Your task to perform on an android device: move an email to a new category in the gmail app Image 0: 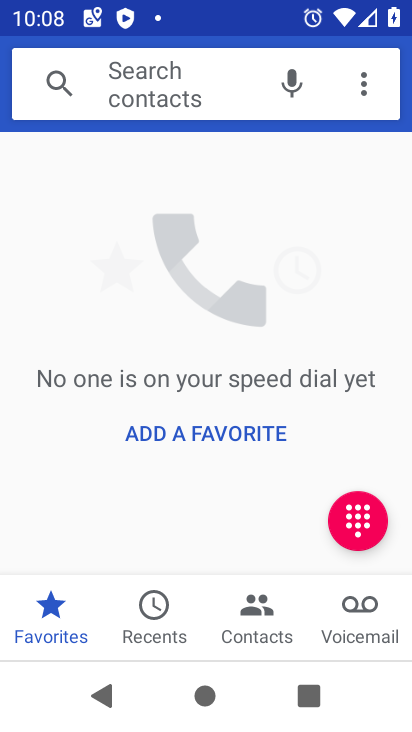
Step 0: press home button
Your task to perform on an android device: move an email to a new category in the gmail app Image 1: 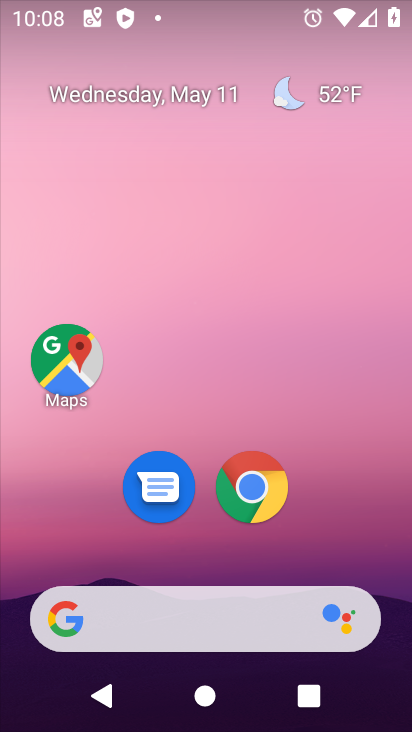
Step 1: drag from (205, 554) to (206, 205)
Your task to perform on an android device: move an email to a new category in the gmail app Image 2: 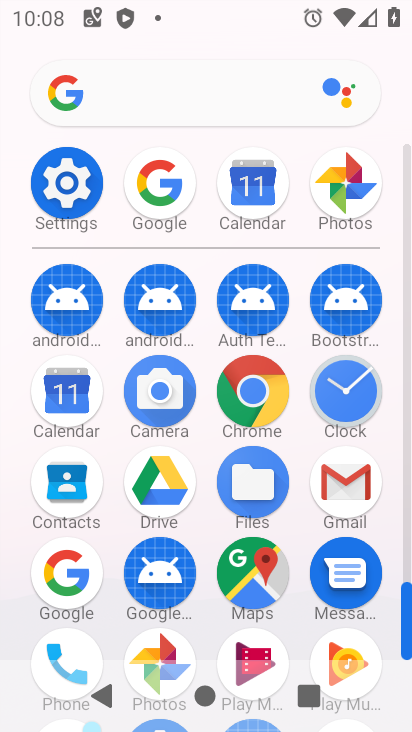
Step 2: drag from (120, 539) to (137, 445)
Your task to perform on an android device: move an email to a new category in the gmail app Image 3: 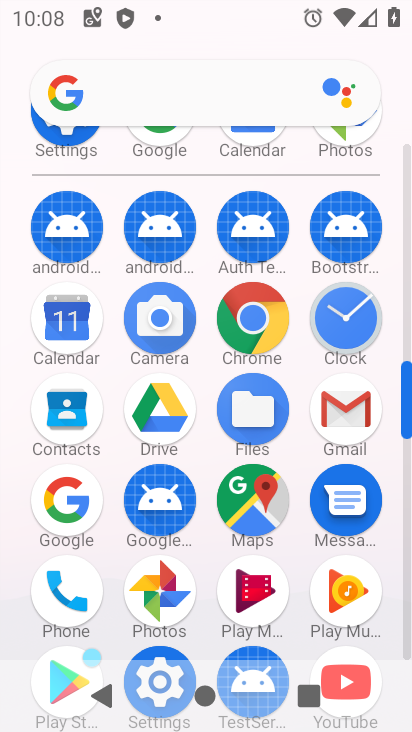
Step 3: click (345, 422)
Your task to perform on an android device: move an email to a new category in the gmail app Image 4: 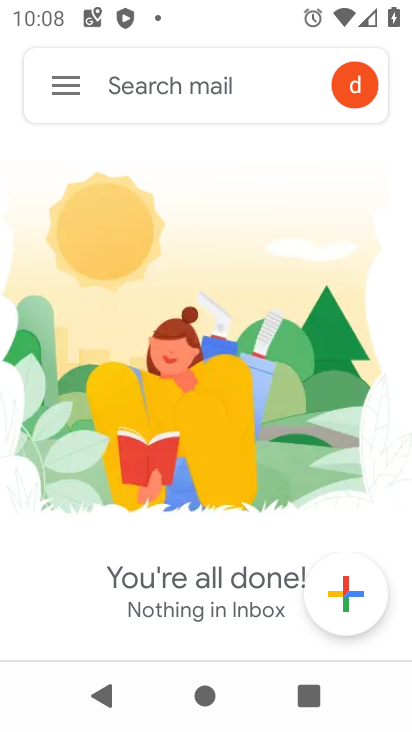
Step 4: click (47, 91)
Your task to perform on an android device: move an email to a new category in the gmail app Image 5: 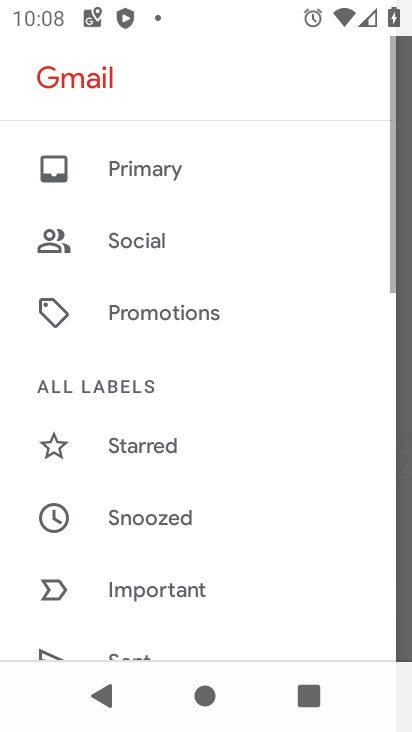
Step 5: drag from (128, 182) to (156, 571)
Your task to perform on an android device: move an email to a new category in the gmail app Image 6: 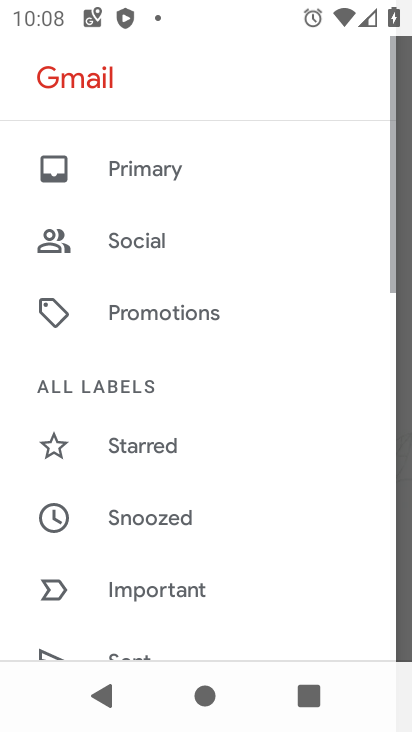
Step 6: drag from (181, 564) to (177, 254)
Your task to perform on an android device: move an email to a new category in the gmail app Image 7: 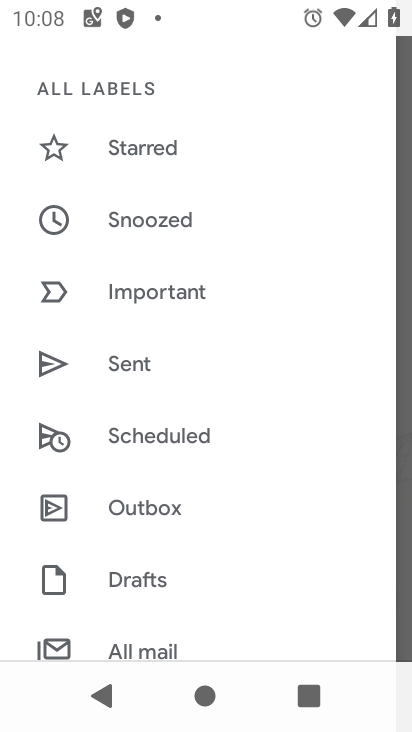
Step 7: drag from (178, 580) to (177, 321)
Your task to perform on an android device: move an email to a new category in the gmail app Image 8: 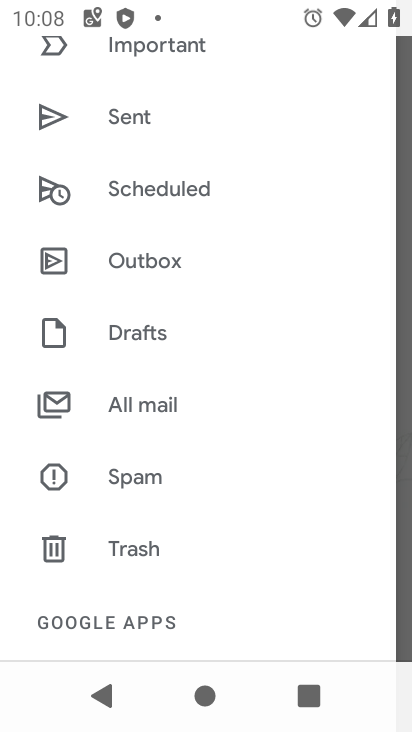
Step 8: click (148, 394)
Your task to perform on an android device: move an email to a new category in the gmail app Image 9: 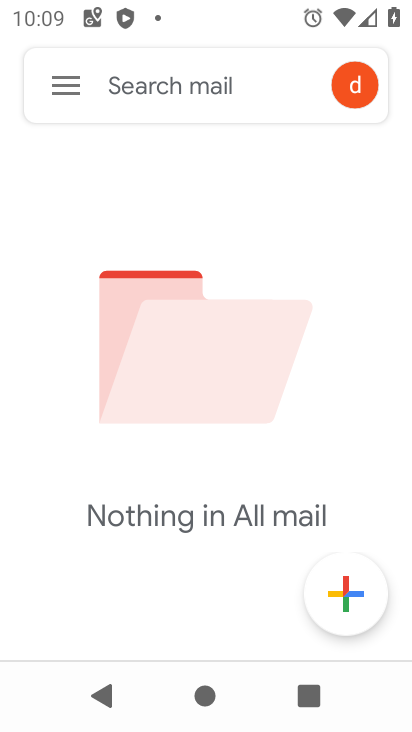
Step 9: task complete